Your task to perform on an android device: Open Youtube and go to "Your channel" Image 0: 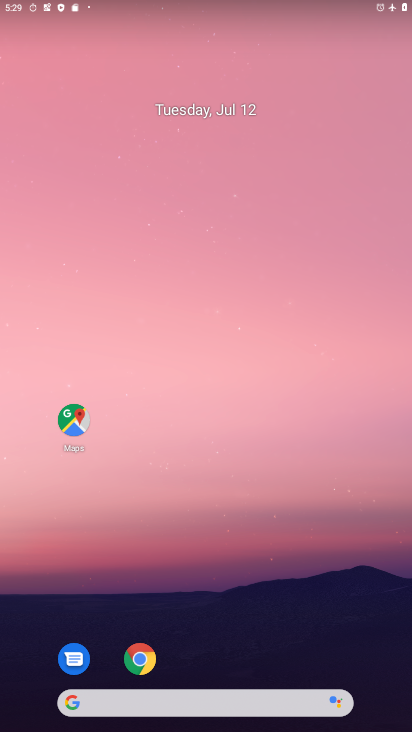
Step 0: drag from (213, 512) to (222, 145)
Your task to perform on an android device: Open Youtube and go to "Your channel" Image 1: 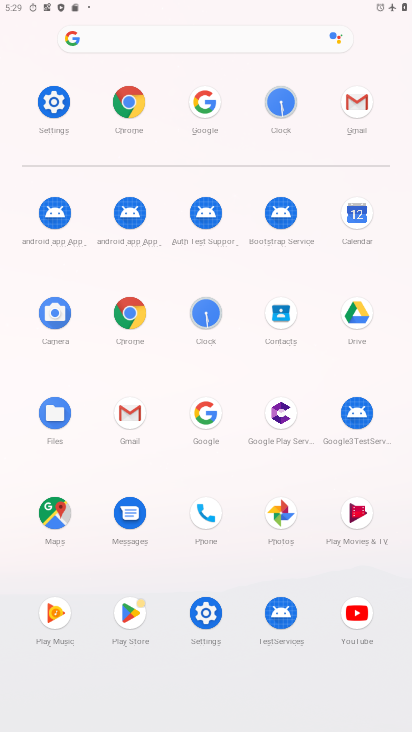
Step 1: click (349, 632)
Your task to perform on an android device: Open Youtube and go to "Your channel" Image 2: 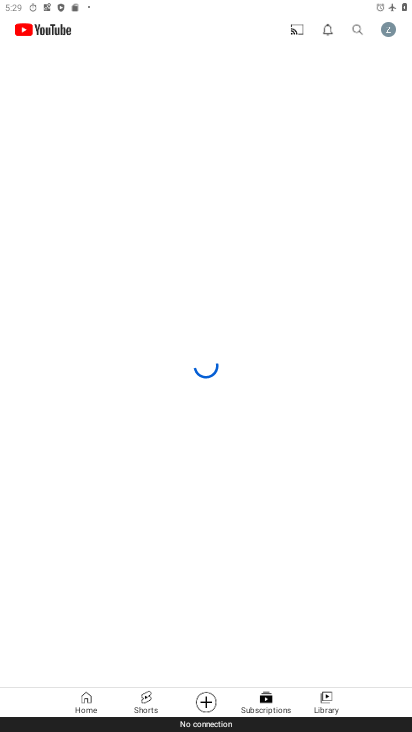
Step 2: click (389, 31)
Your task to perform on an android device: Open Youtube and go to "Your channel" Image 3: 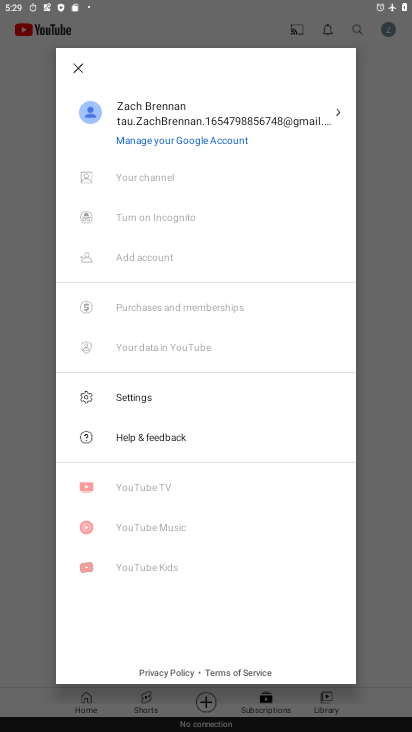
Step 3: click (176, 125)
Your task to perform on an android device: Open Youtube and go to "Your channel" Image 4: 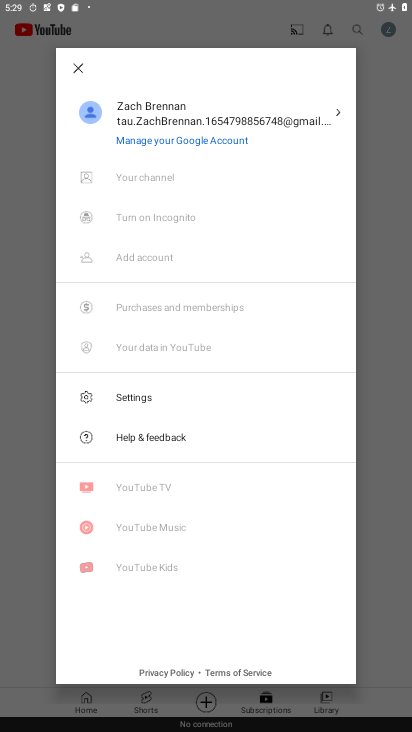
Step 4: click (333, 118)
Your task to perform on an android device: Open Youtube and go to "Your channel" Image 5: 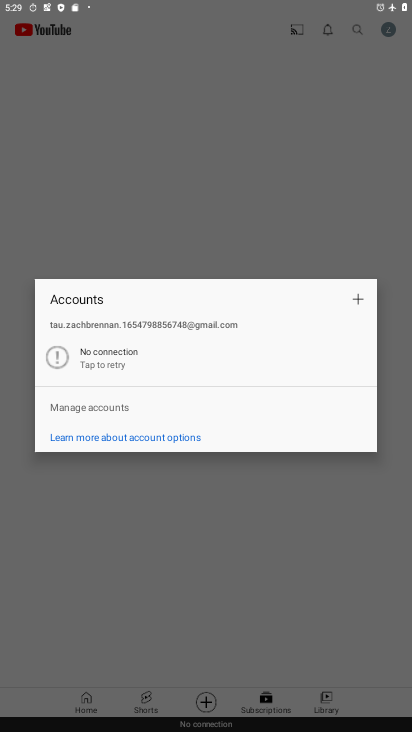
Step 5: task complete